Your task to perform on an android device: What's on the menu at Five Guys? Image 0: 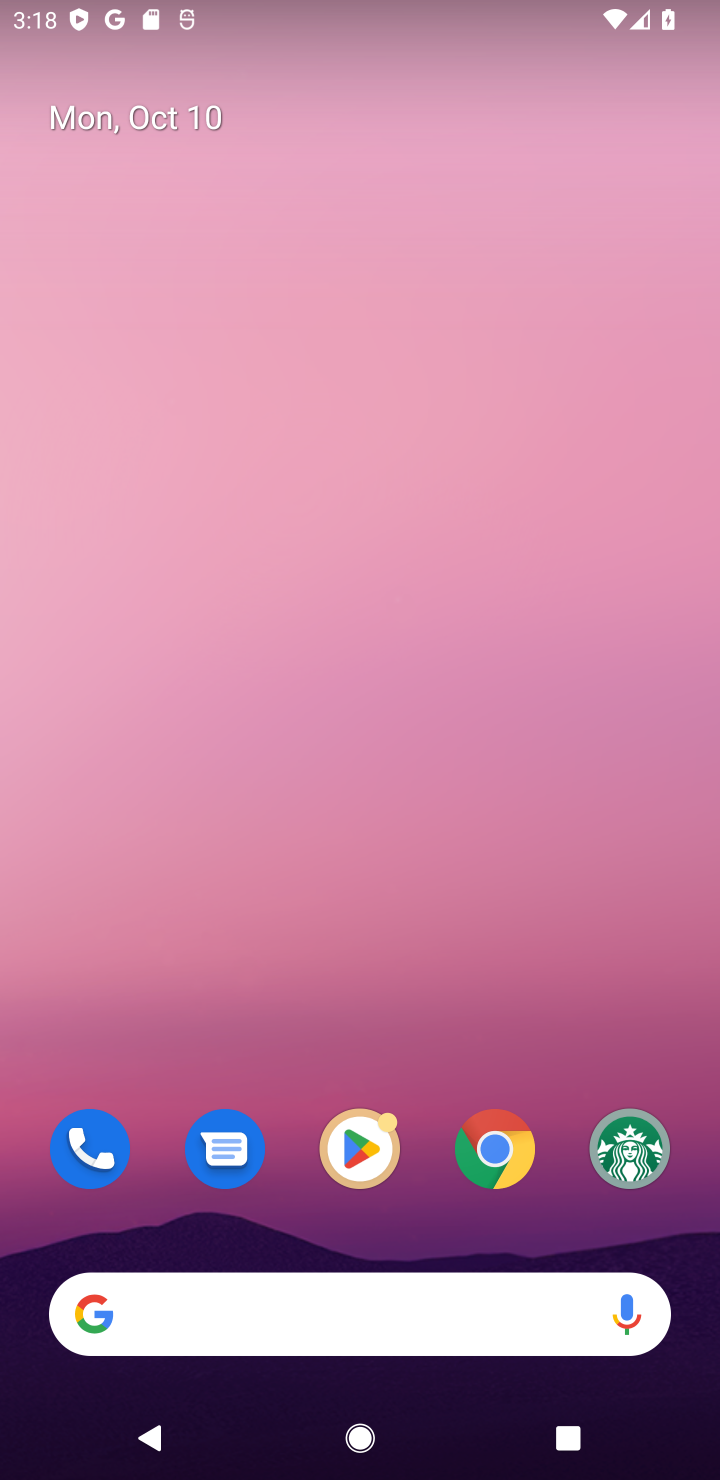
Step 0: click (294, 1317)
Your task to perform on an android device: What's on the menu at Five Guys? Image 1: 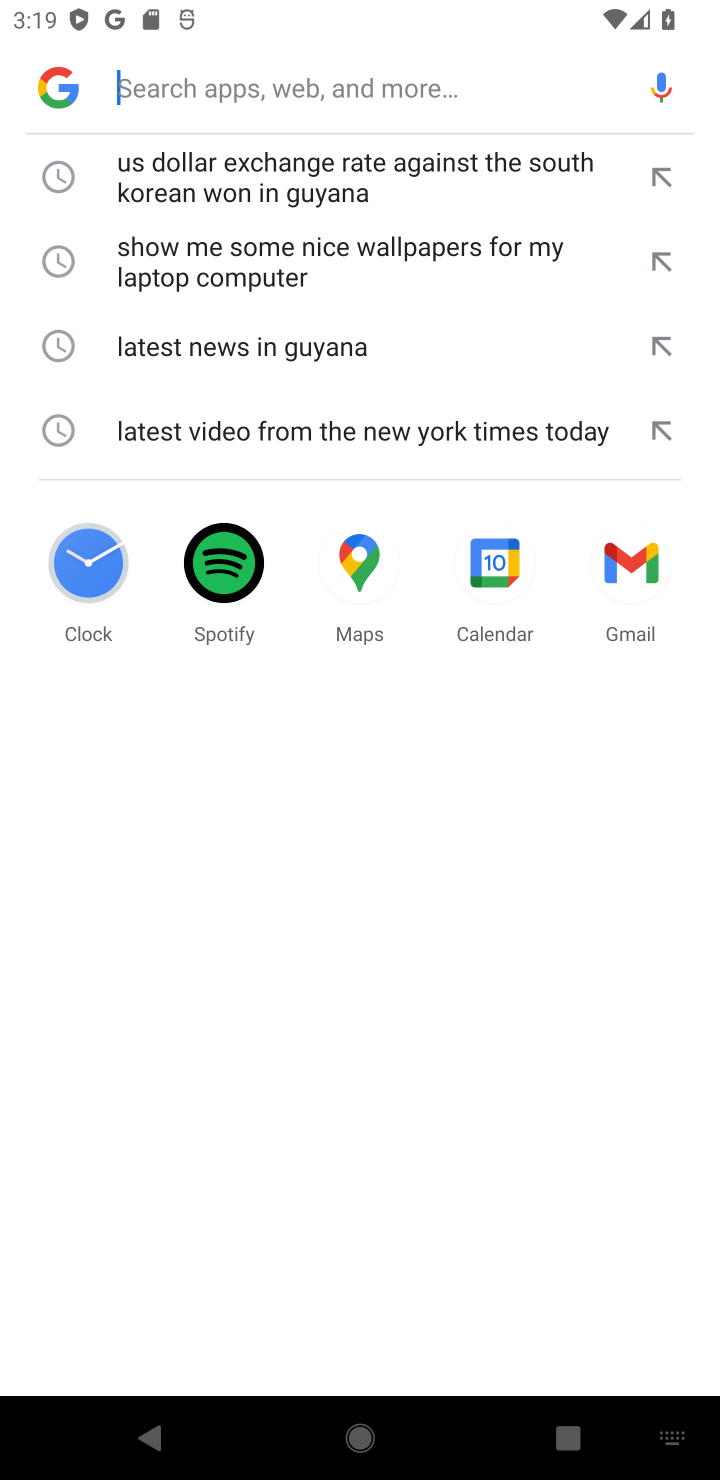
Step 1: type "the menu at Five Guys"
Your task to perform on an android device: What's on the menu at Five Guys? Image 2: 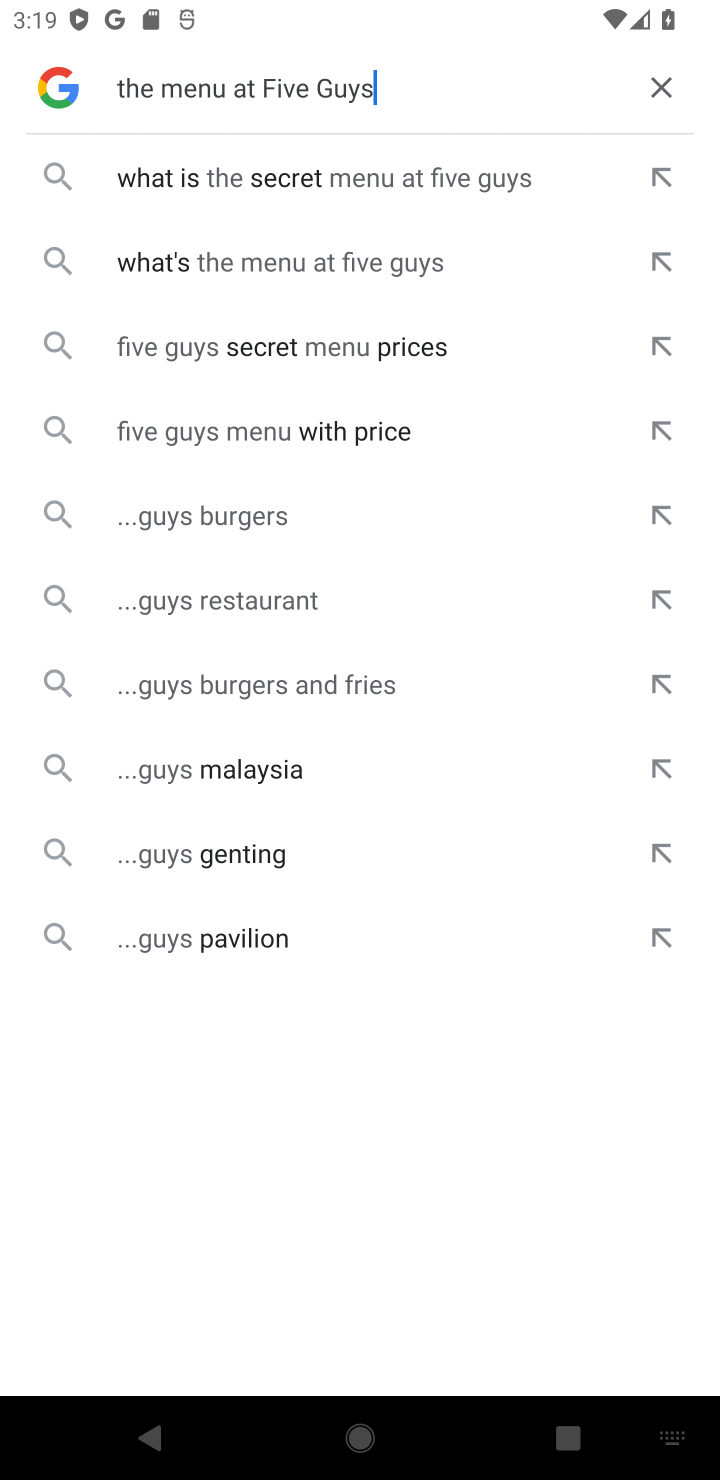
Step 2: click (488, 177)
Your task to perform on an android device: What's on the menu at Five Guys? Image 3: 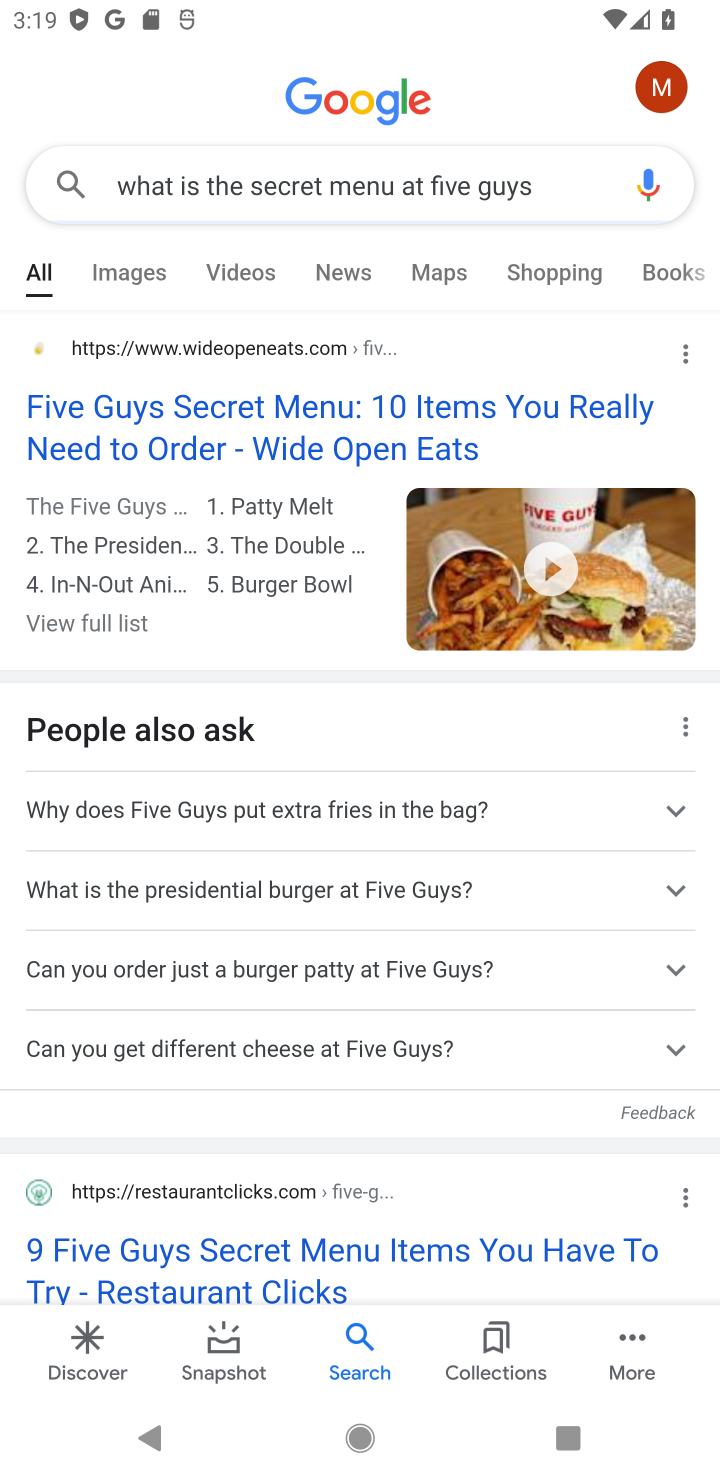
Step 3: task complete